Your task to perform on an android device: install app "Paramount+ | Peak Streaming" Image 0: 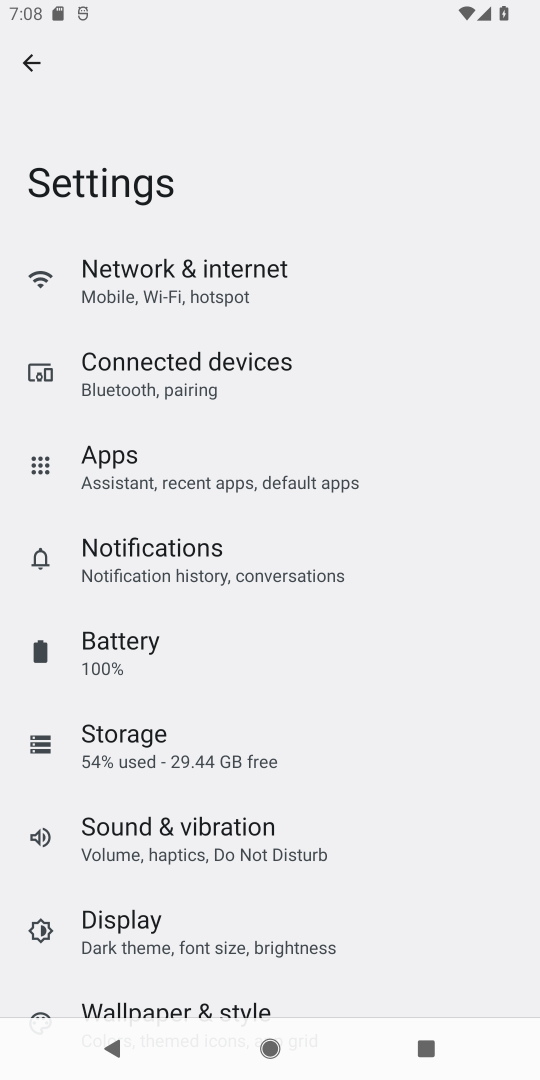
Step 0: press home button
Your task to perform on an android device: install app "Paramount+ | Peak Streaming" Image 1: 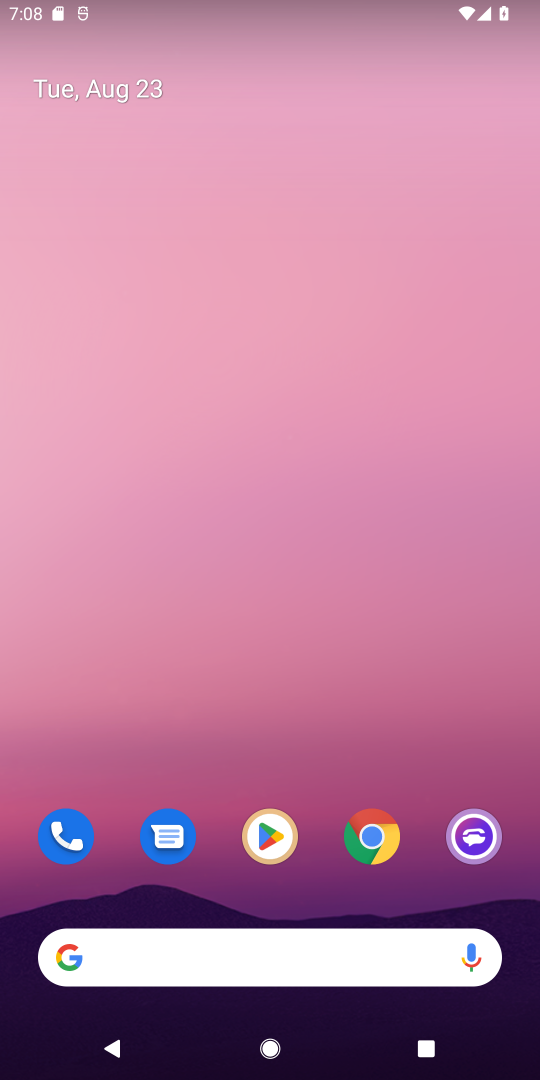
Step 1: click (261, 840)
Your task to perform on an android device: install app "Paramount+ | Peak Streaming" Image 2: 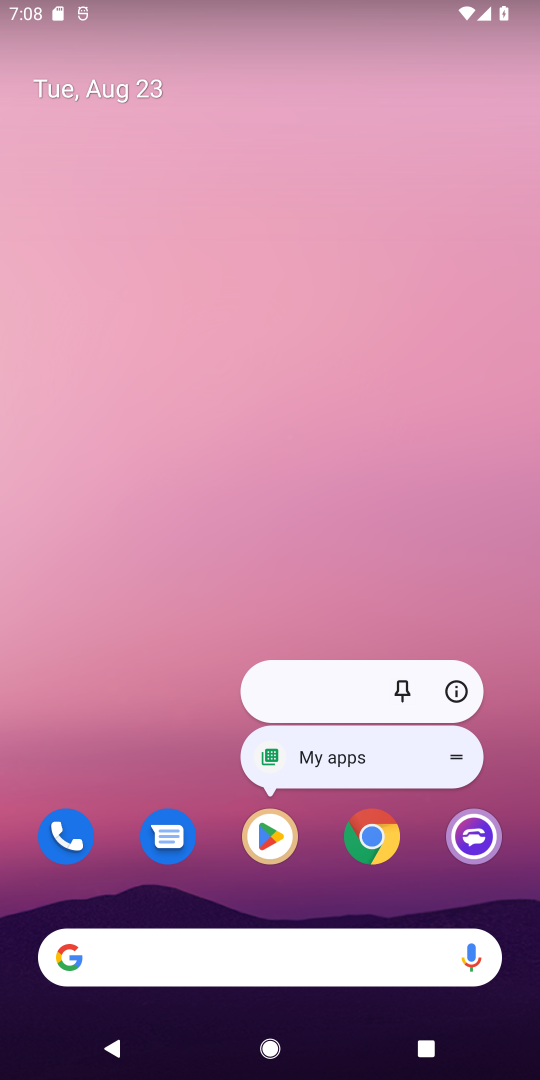
Step 2: click (266, 837)
Your task to perform on an android device: install app "Paramount+ | Peak Streaming" Image 3: 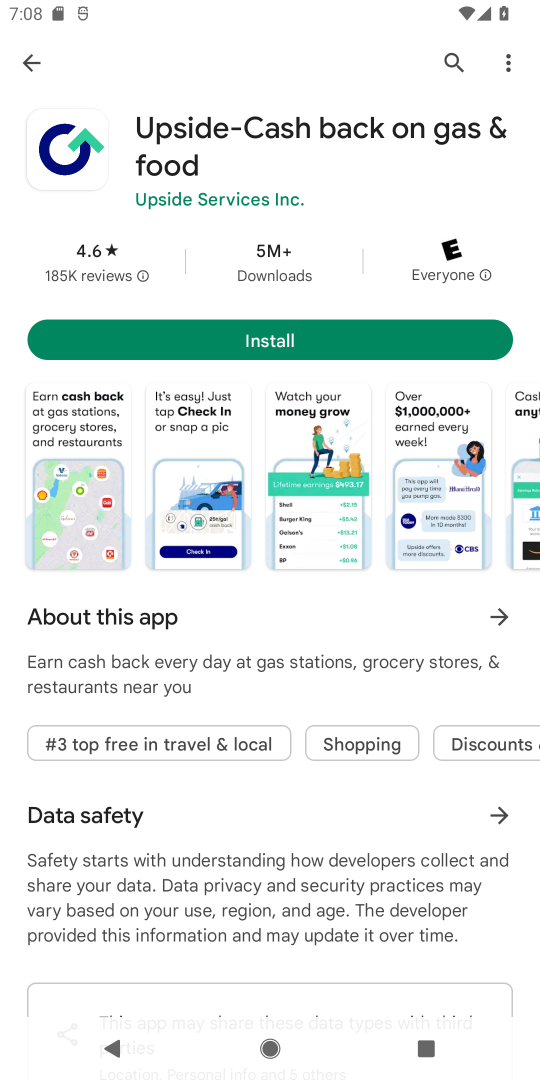
Step 3: click (452, 53)
Your task to perform on an android device: install app "Paramount+ | Peak Streaming" Image 4: 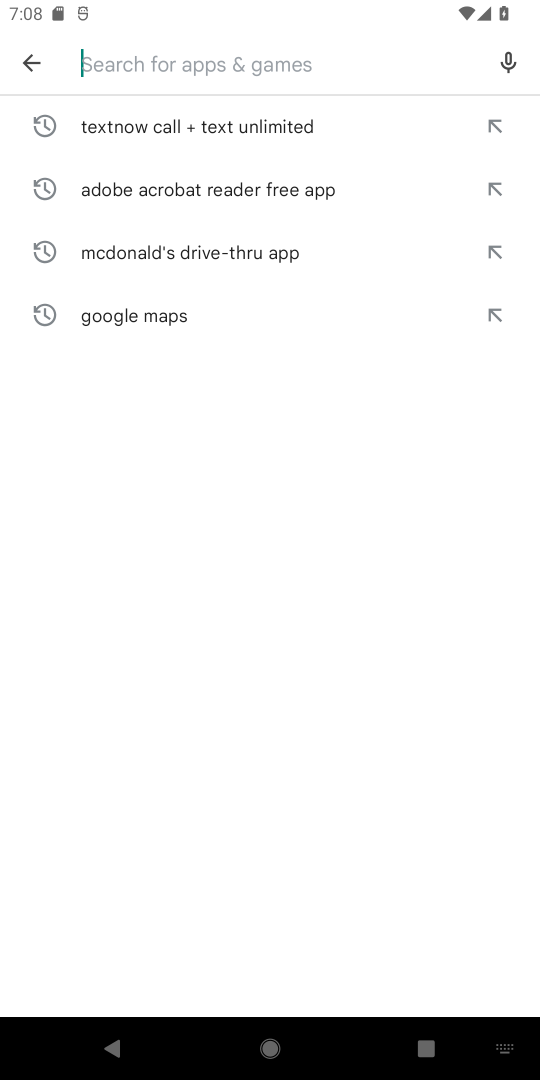
Step 4: type "Paramount+ | Peak Streaming"
Your task to perform on an android device: install app "Paramount+ | Peak Streaming" Image 5: 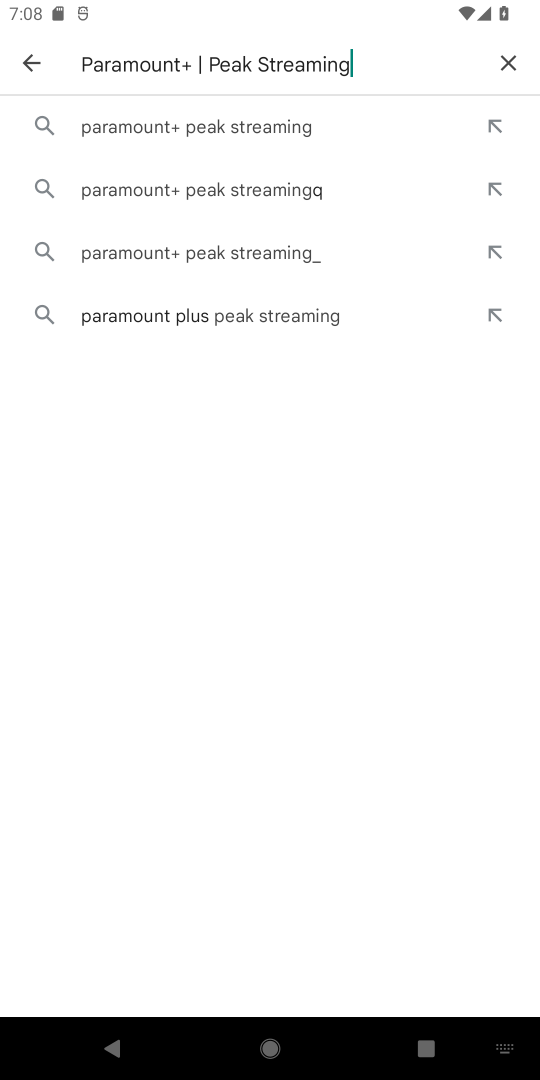
Step 5: click (266, 131)
Your task to perform on an android device: install app "Paramount+ | Peak Streaming" Image 6: 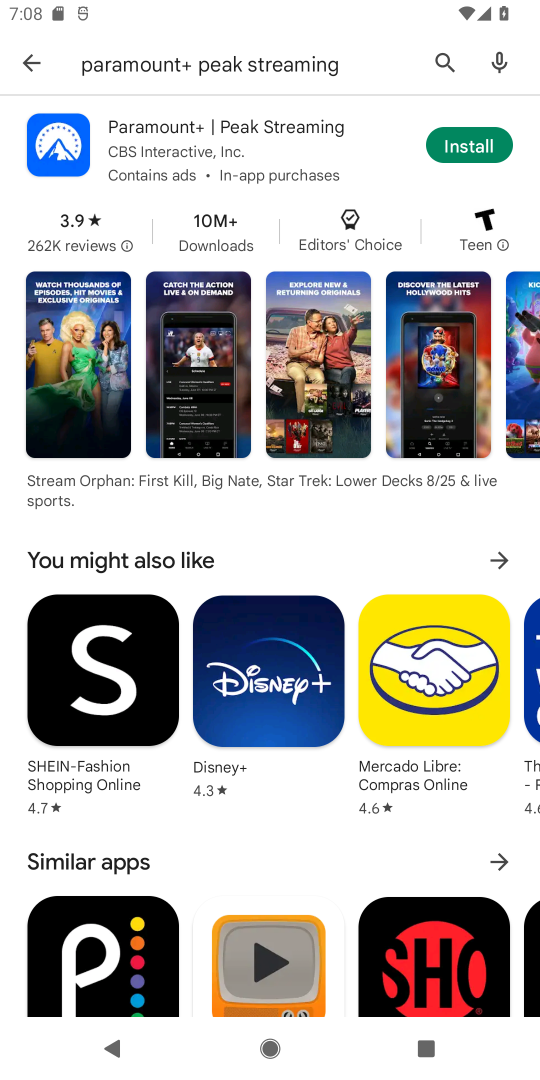
Step 6: click (451, 143)
Your task to perform on an android device: install app "Paramount+ | Peak Streaming" Image 7: 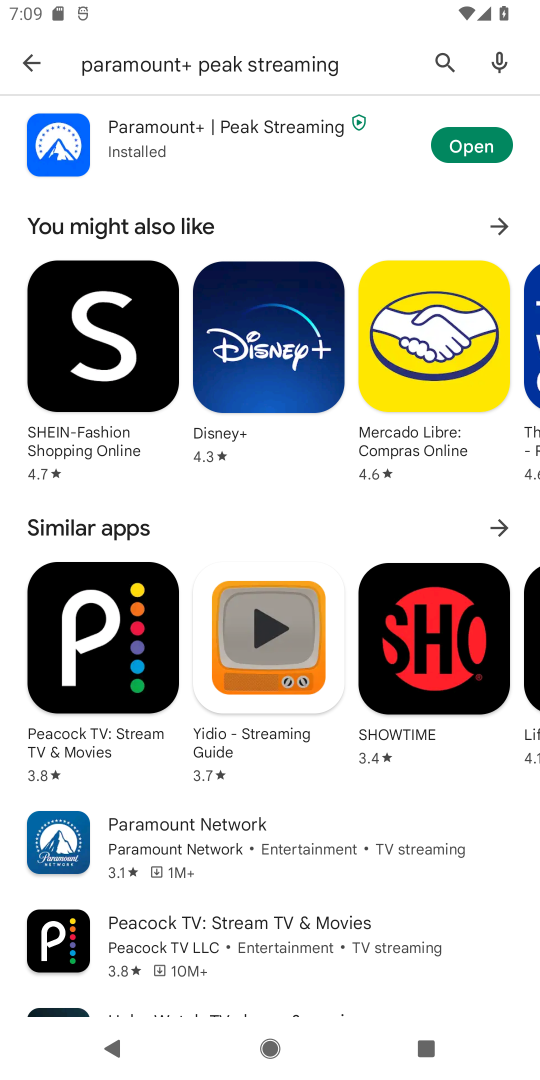
Step 7: task complete